Your task to perform on an android device: Add "apple airpods pro" to the cart on bestbuy, then select checkout. Image 0: 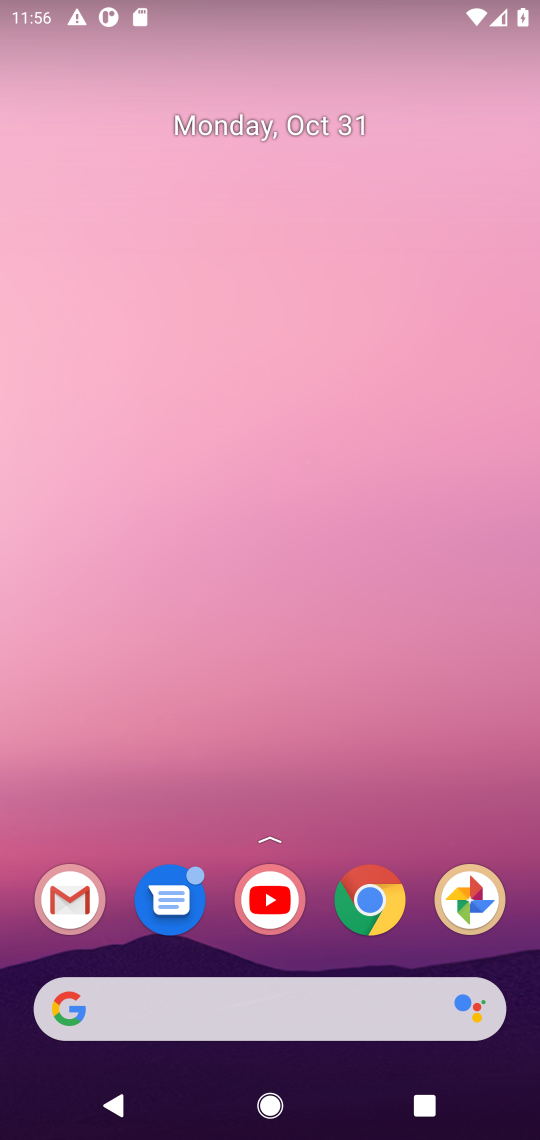
Step 0: click (367, 900)
Your task to perform on an android device: Add "apple airpods pro" to the cart on bestbuy, then select checkout. Image 1: 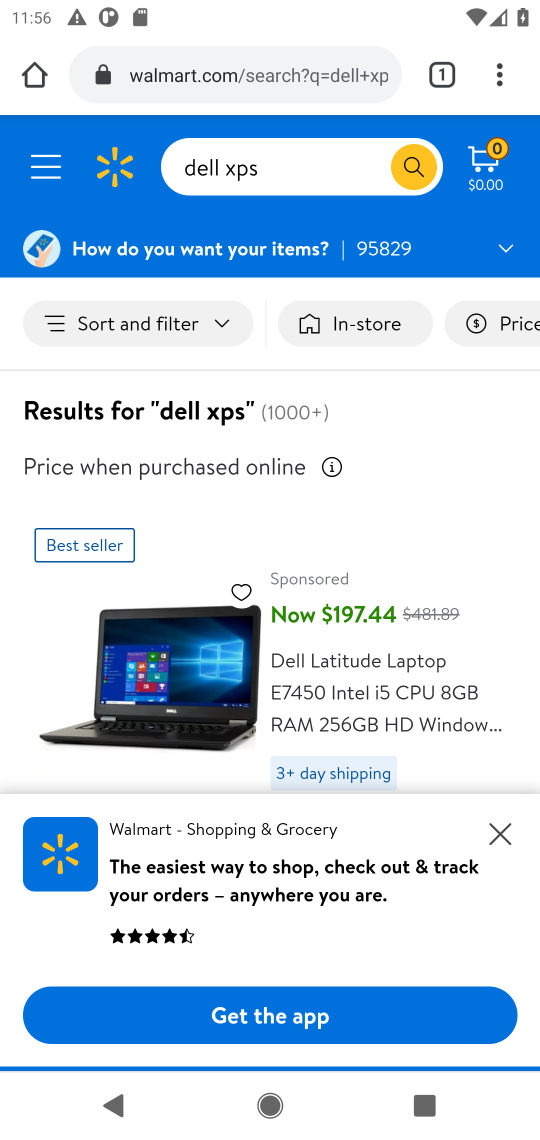
Step 1: click (274, 82)
Your task to perform on an android device: Add "apple airpods pro" to the cart on bestbuy, then select checkout. Image 2: 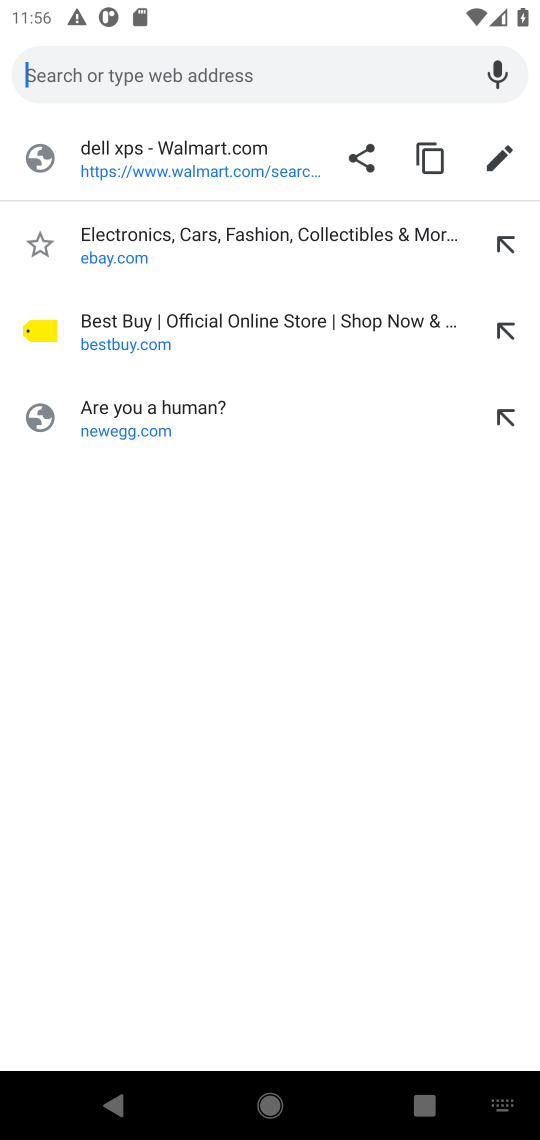
Step 2: click (201, 329)
Your task to perform on an android device: Add "apple airpods pro" to the cart on bestbuy, then select checkout. Image 3: 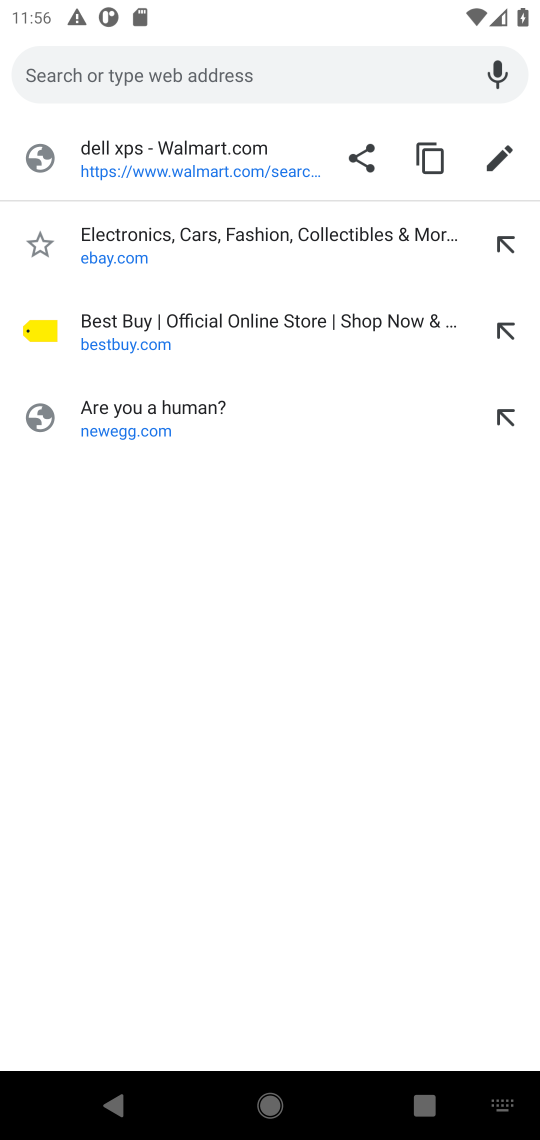
Step 3: click (201, 329)
Your task to perform on an android device: Add "apple airpods pro" to the cart on bestbuy, then select checkout. Image 4: 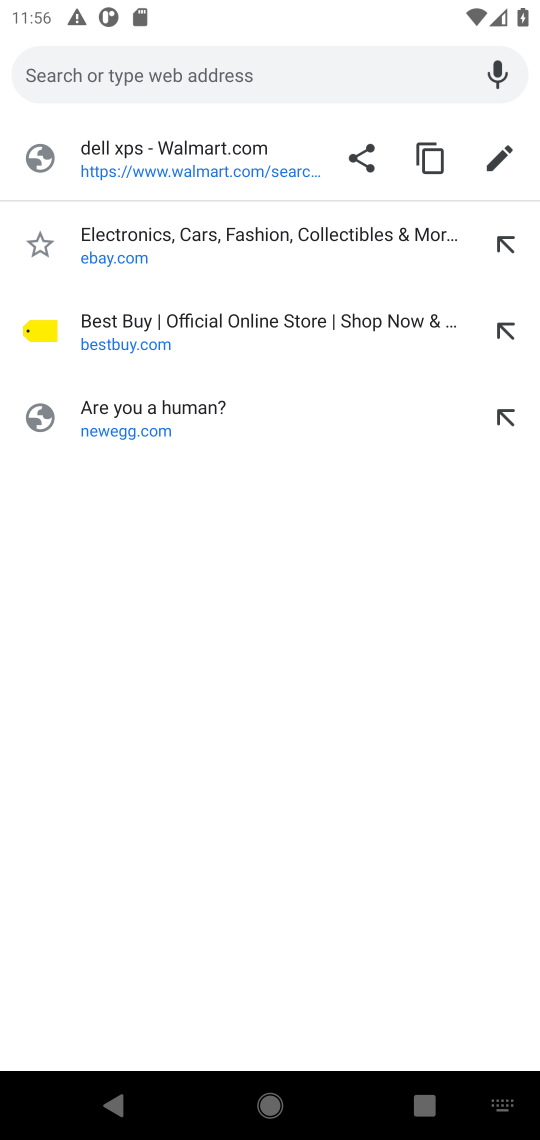
Step 4: click (138, 329)
Your task to perform on an android device: Add "apple airpods pro" to the cart on bestbuy, then select checkout. Image 5: 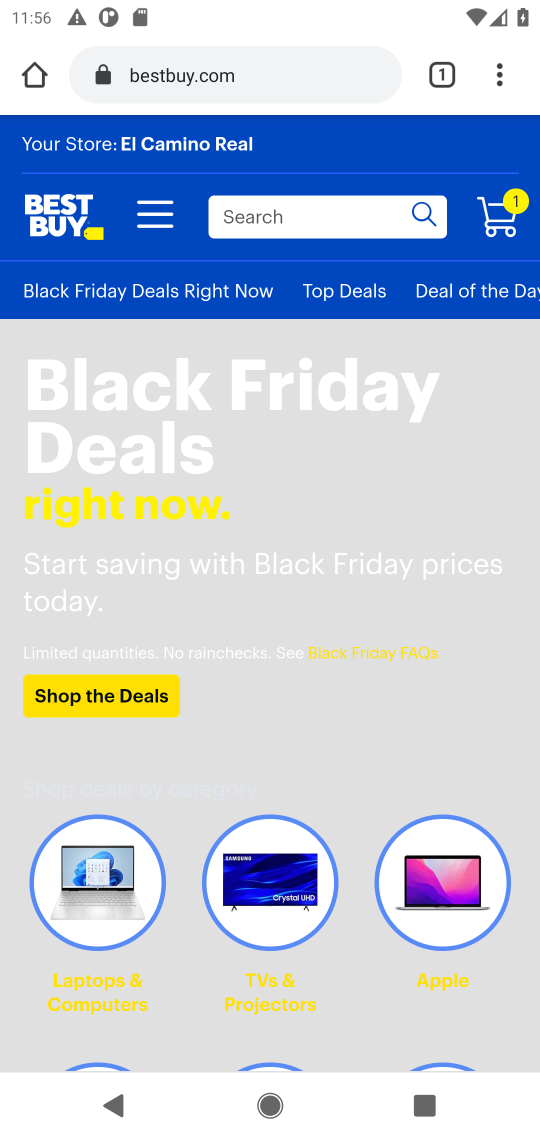
Step 5: click (271, 198)
Your task to perform on an android device: Add "apple airpods pro" to the cart on bestbuy, then select checkout. Image 6: 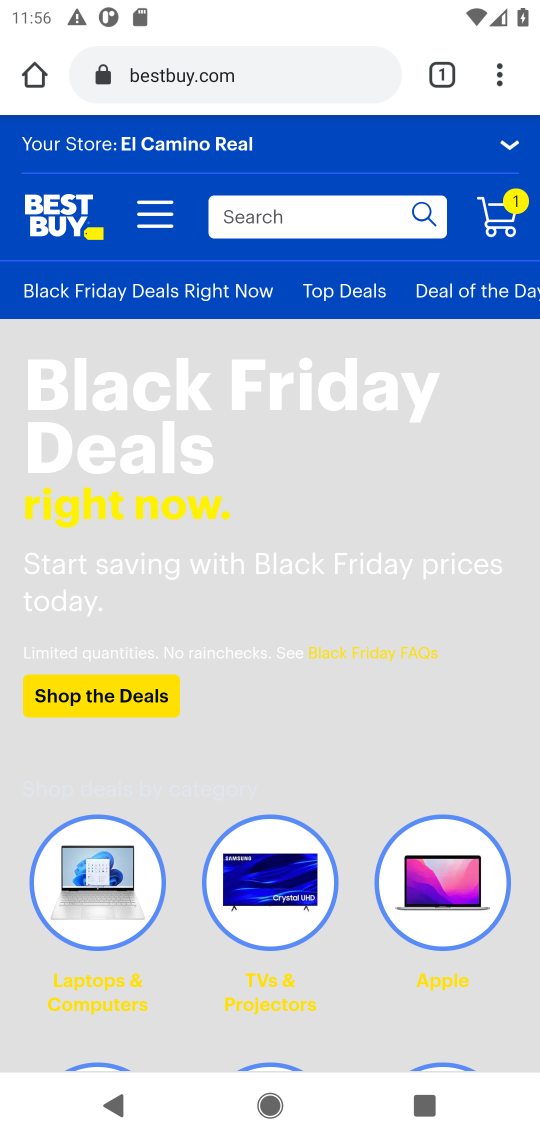
Step 6: click (286, 211)
Your task to perform on an android device: Add "apple airpods pro" to the cart on bestbuy, then select checkout. Image 7: 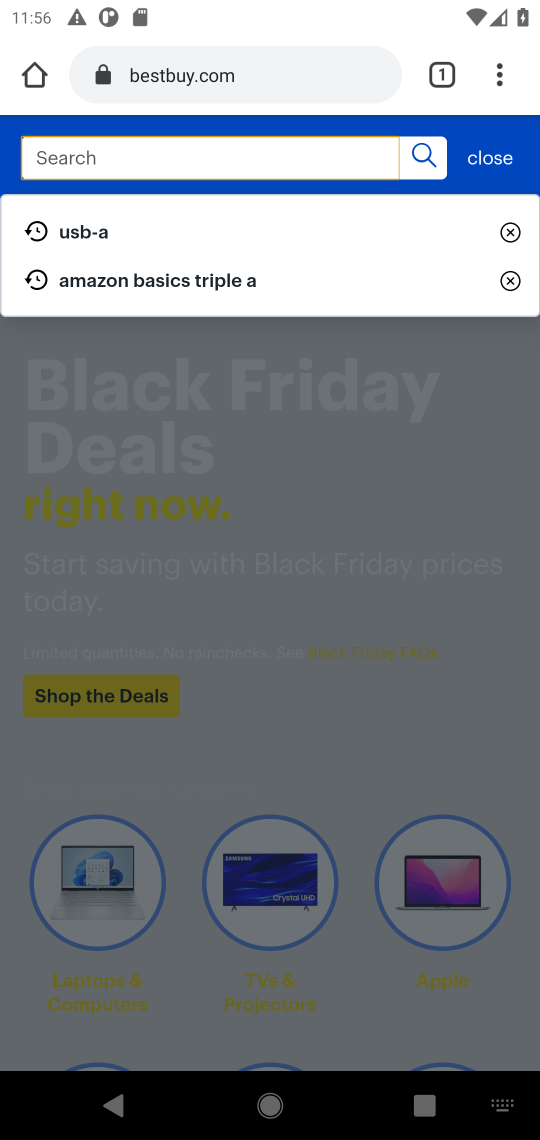
Step 7: type "apple airpods pro"
Your task to perform on an android device: Add "apple airpods pro" to the cart on bestbuy, then select checkout. Image 8: 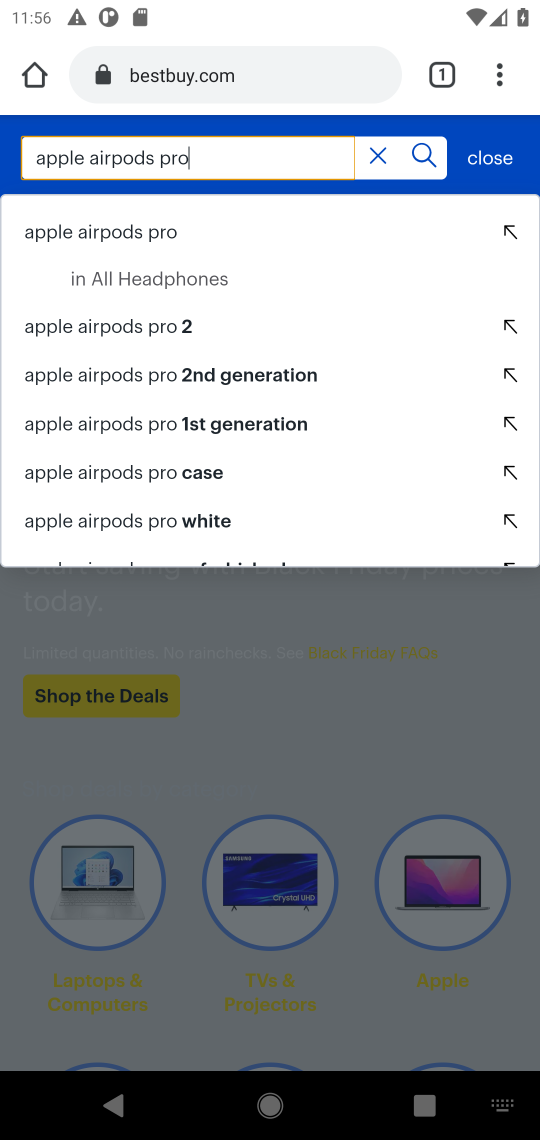
Step 8: press enter
Your task to perform on an android device: Add "apple airpods pro" to the cart on bestbuy, then select checkout. Image 9: 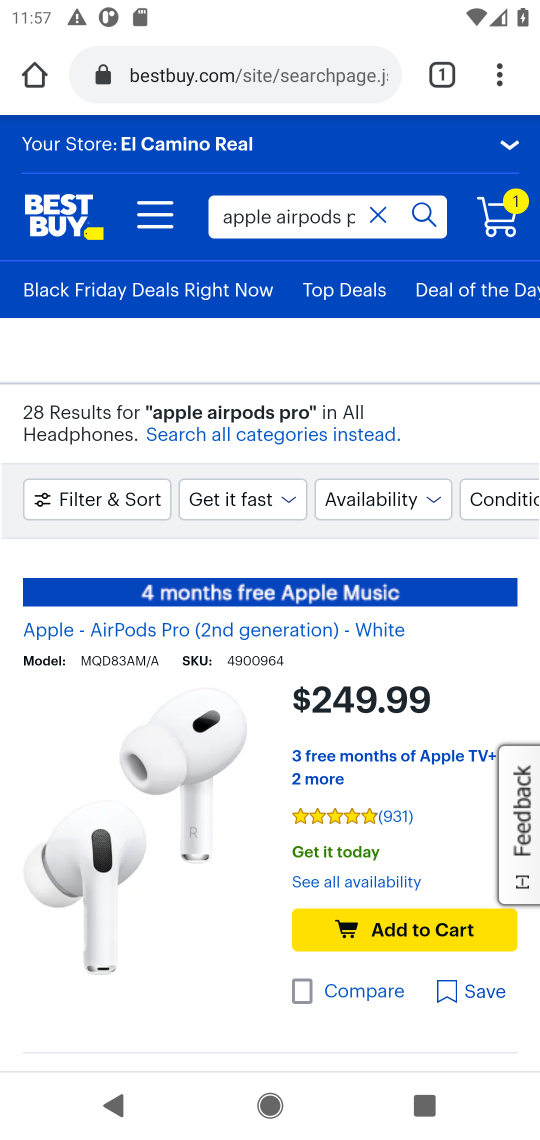
Step 9: click (347, 939)
Your task to perform on an android device: Add "apple airpods pro" to the cart on bestbuy, then select checkout. Image 10: 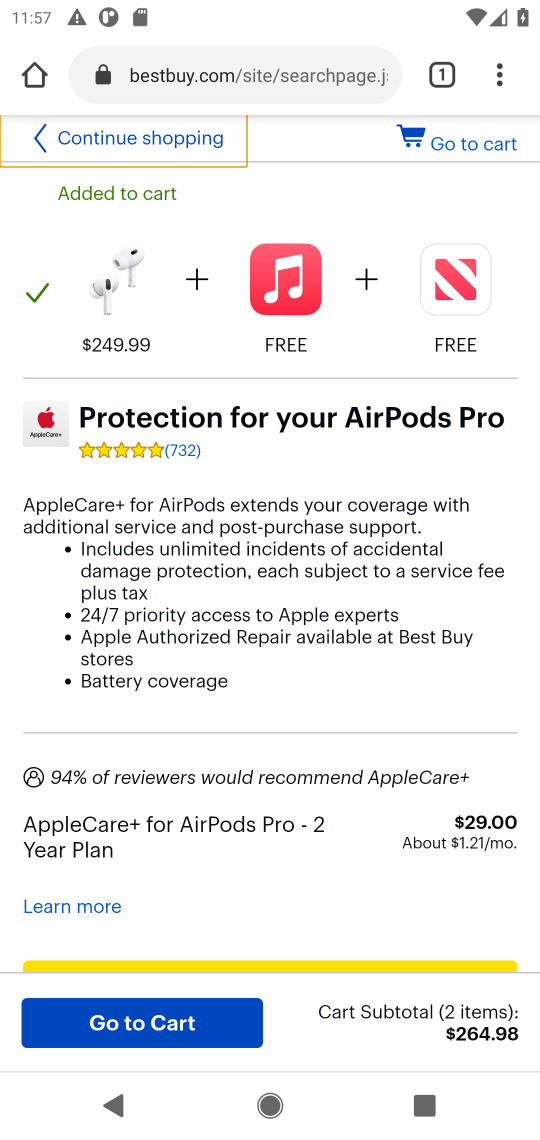
Step 10: click (153, 1028)
Your task to perform on an android device: Add "apple airpods pro" to the cart on bestbuy, then select checkout. Image 11: 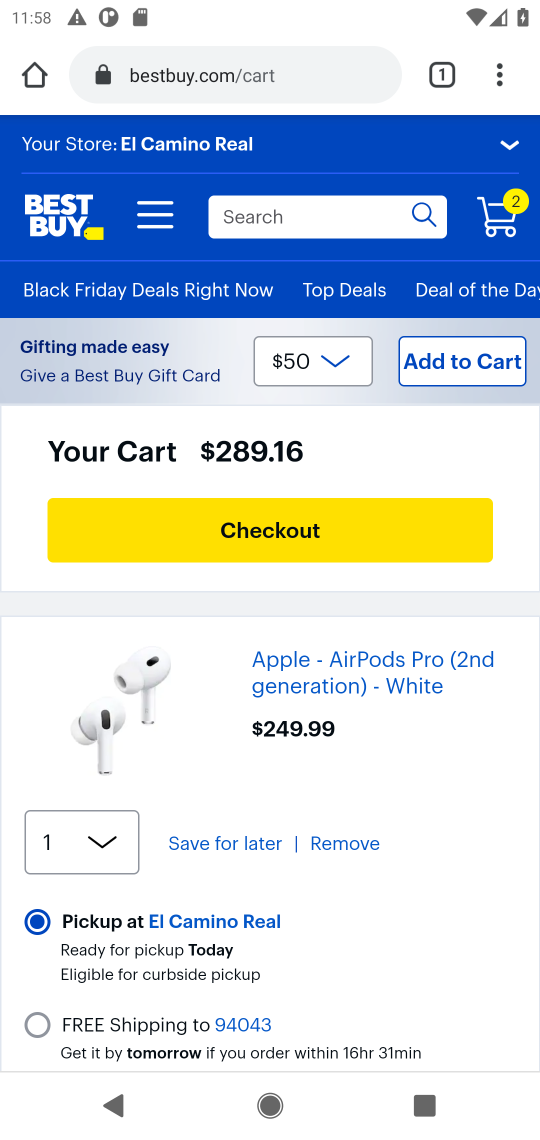
Step 11: click (277, 531)
Your task to perform on an android device: Add "apple airpods pro" to the cart on bestbuy, then select checkout. Image 12: 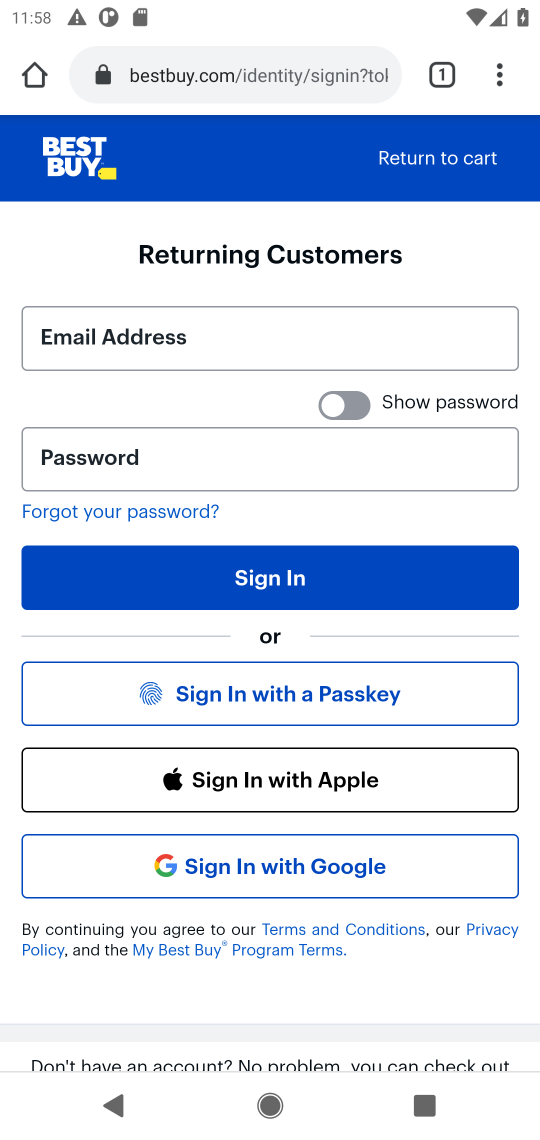
Step 12: task complete